Your task to perform on an android device: add a contact in the contacts app Image 0: 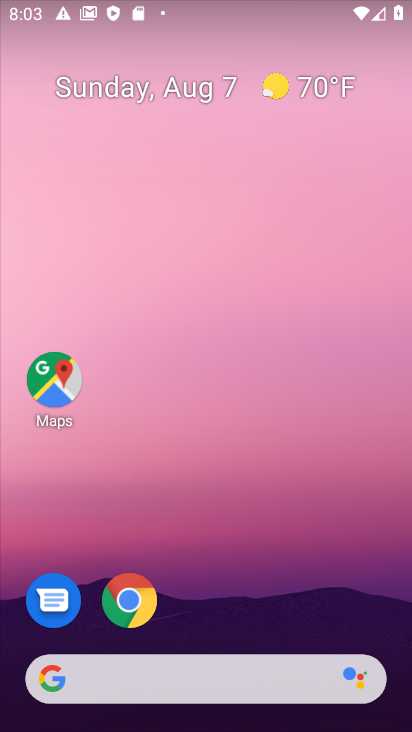
Step 0: drag from (181, 576) to (176, 156)
Your task to perform on an android device: add a contact in the contacts app Image 1: 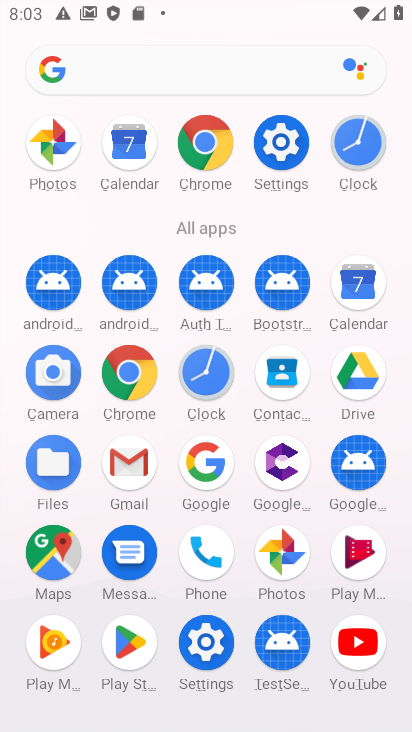
Step 1: click (275, 401)
Your task to perform on an android device: add a contact in the contacts app Image 2: 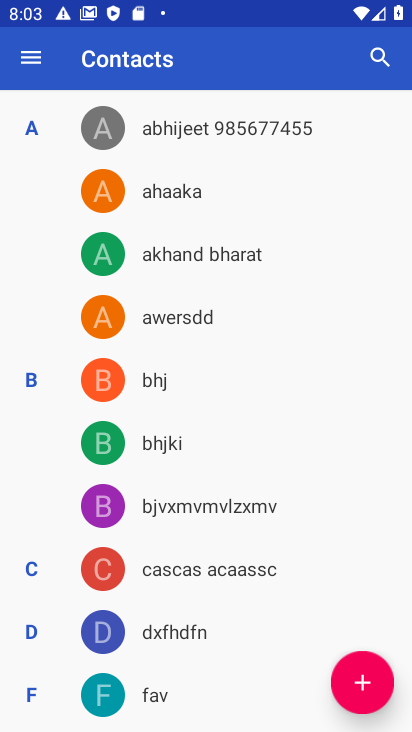
Step 2: click (359, 696)
Your task to perform on an android device: add a contact in the contacts app Image 3: 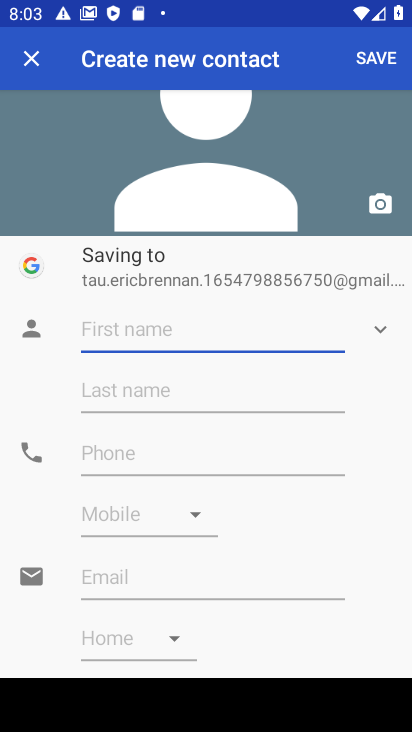
Step 3: type "Viru"
Your task to perform on an android device: add a contact in the contacts app Image 4: 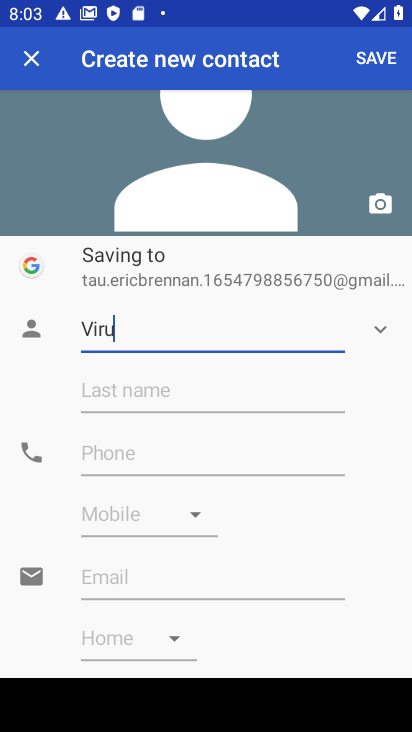
Step 4: click (199, 389)
Your task to perform on an android device: add a contact in the contacts app Image 5: 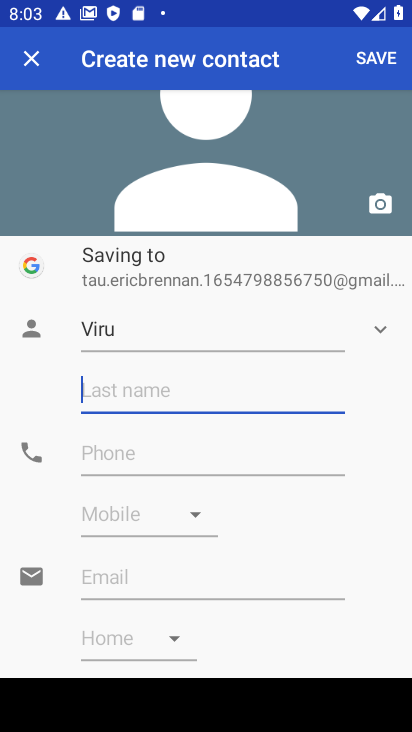
Step 5: type "Sahay"
Your task to perform on an android device: add a contact in the contacts app Image 6: 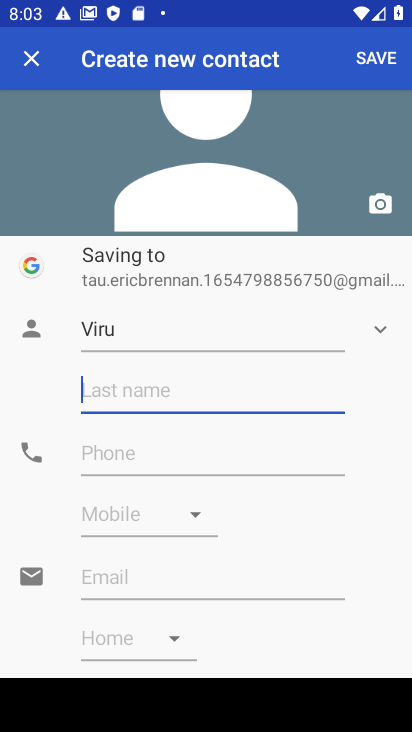
Step 6: click (147, 450)
Your task to perform on an android device: add a contact in the contacts app Image 7: 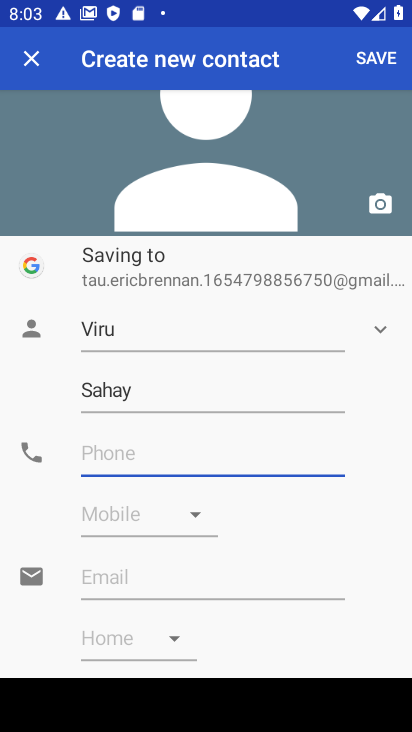
Step 7: type "7899879090"
Your task to perform on an android device: add a contact in the contacts app Image 8: 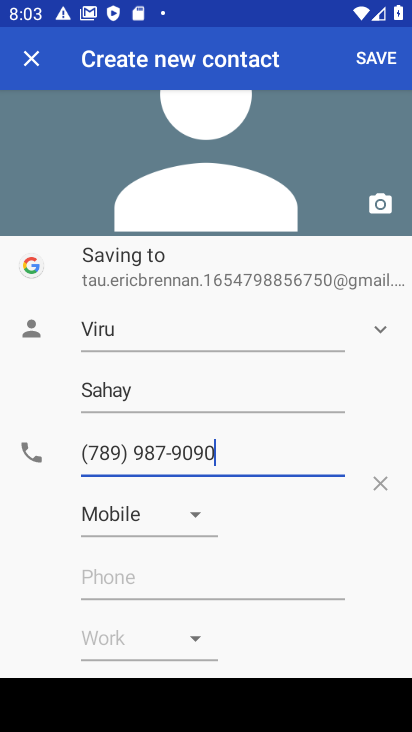
Step 8: click (369, 65)
Your task to perform on an android device: add a contact in the contacts app Image 9: 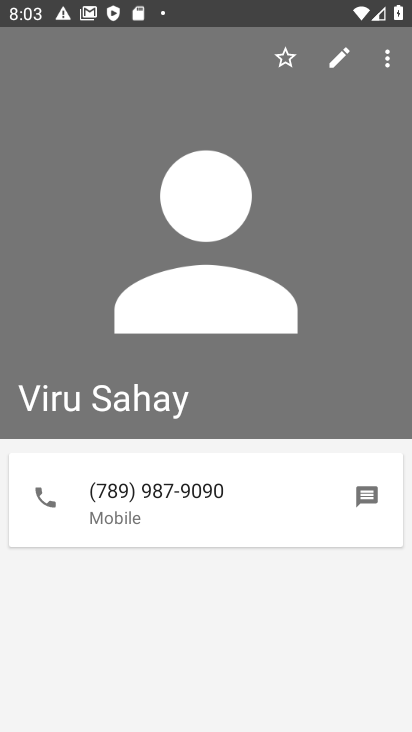
Step 9: task complete